Your task to perform on an android device: Go to battery settings Image 0: 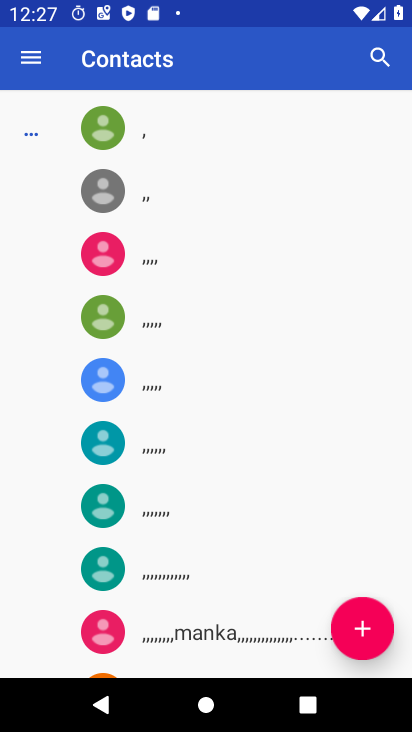
Step 0: press home button
Your task to perform on an android device: Go to battery settings Image 1: 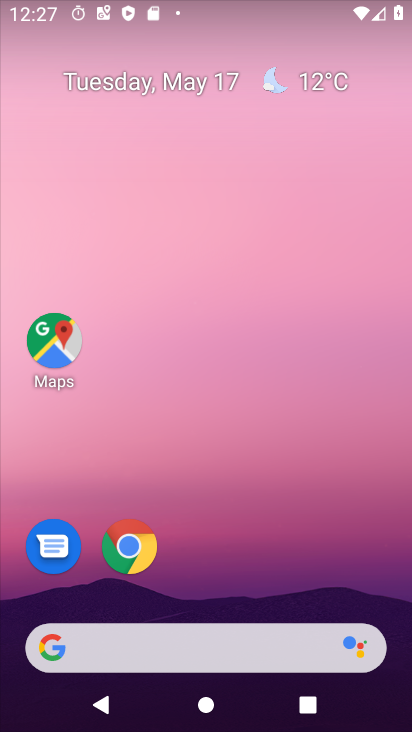
Step 1: drag from (222, 636) to (356, 86)
Your task to perform on an android device: Go to battery settings Image 2: 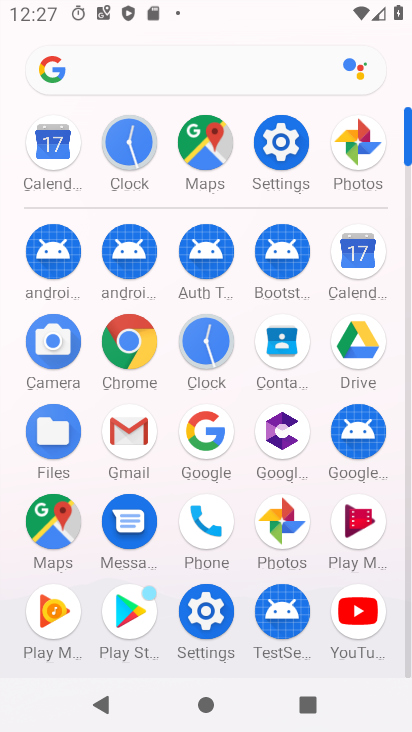
Step 2: click (271, 144)
Your task to perform on an android device: Go to battery settings Image 3: 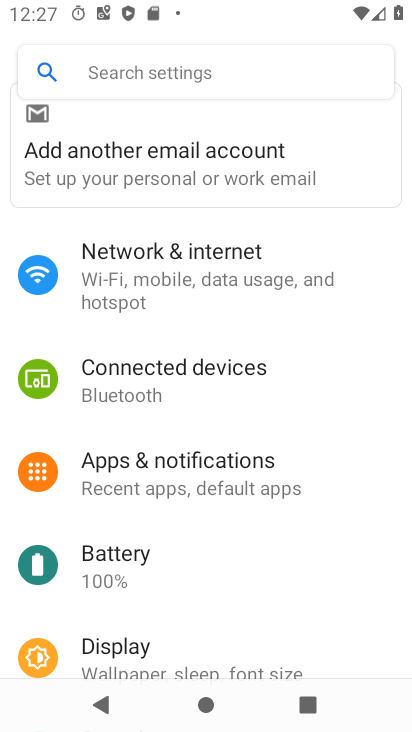
Step 3: click (119, 554)
Your task to perform on an android device: Go to battery settings Image 4: 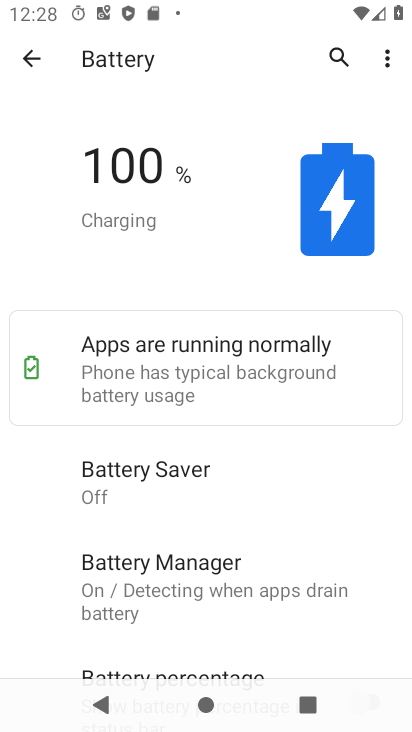
Step 4: task complete